Your task to perform on an android device: turn off location Image 0: 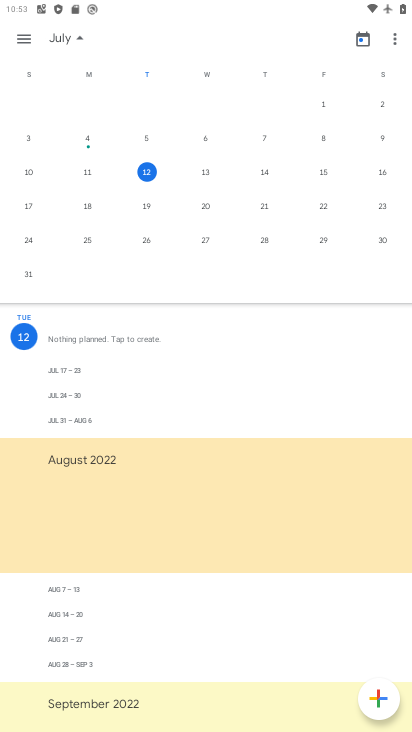
Step 0: press home button
Your task to perform on an android device: turn off location Image 1: 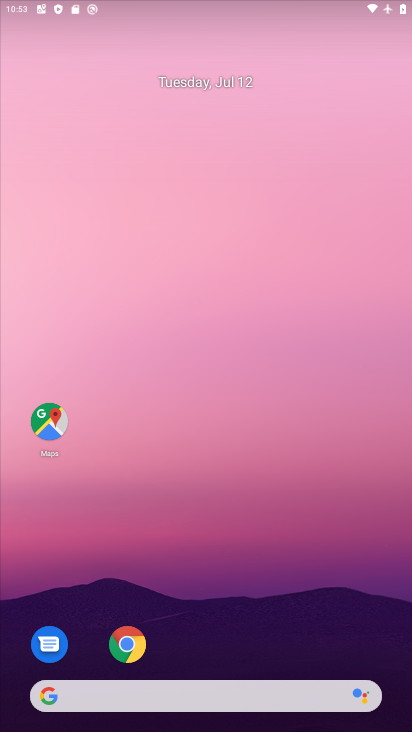
Step 1: drag from (289, 391) to (270, 13)
Your task to perform on an android device: turn off location Image 2: 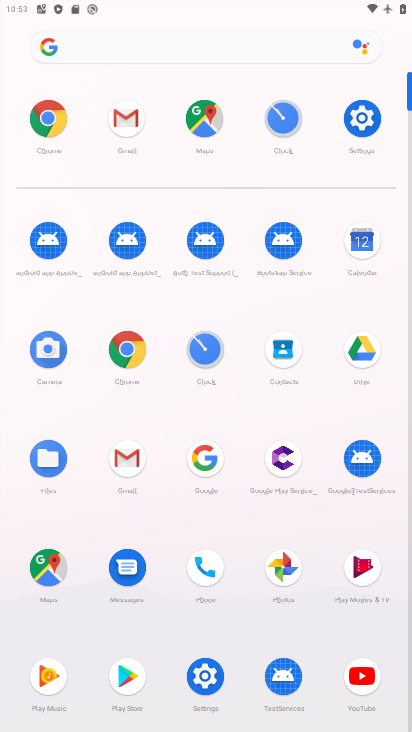
Step 2: click (350, 124)
Your task to perform on an android device: turn off location Image 3: 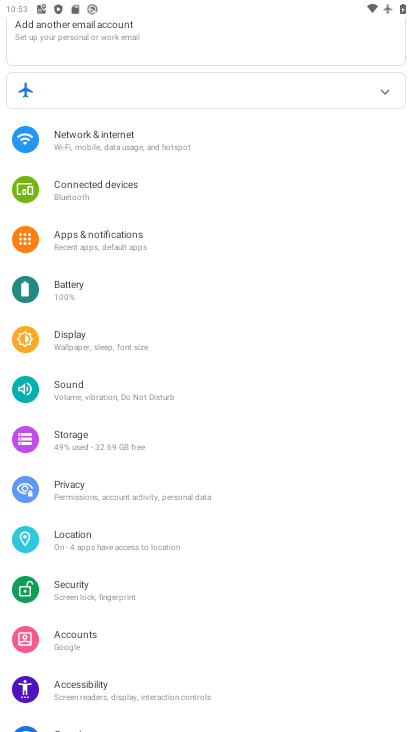
Step 3: click (122, 541)
Your task to perform on an android device: turn off location Image 4: 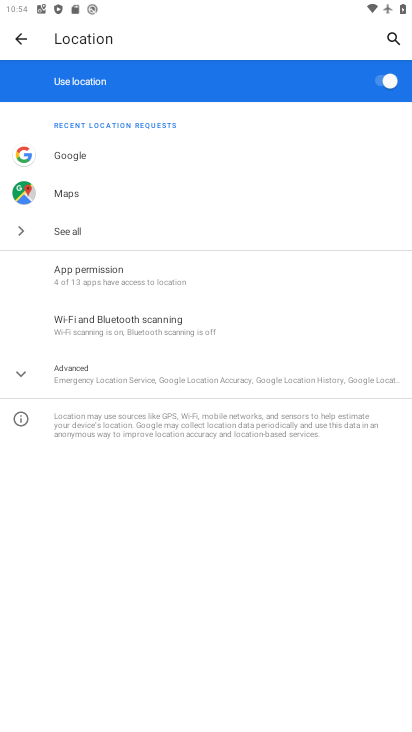
Step 4: click (371, 80)
Your task to perform on an android device: turn off location Image 5: 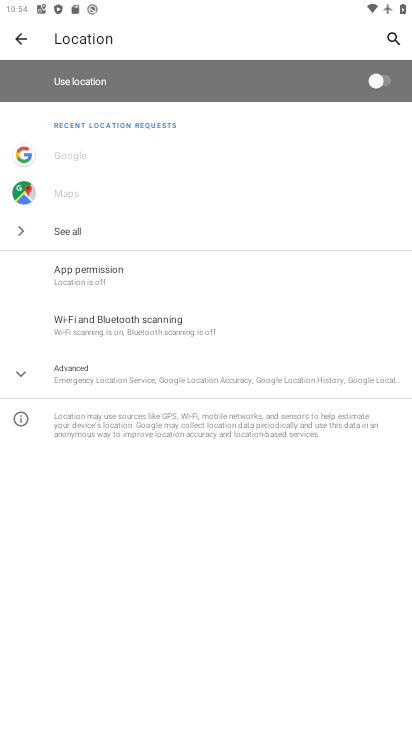
Step 5: task complete